Your task to perform on an android device: Open the web browser Image 0: 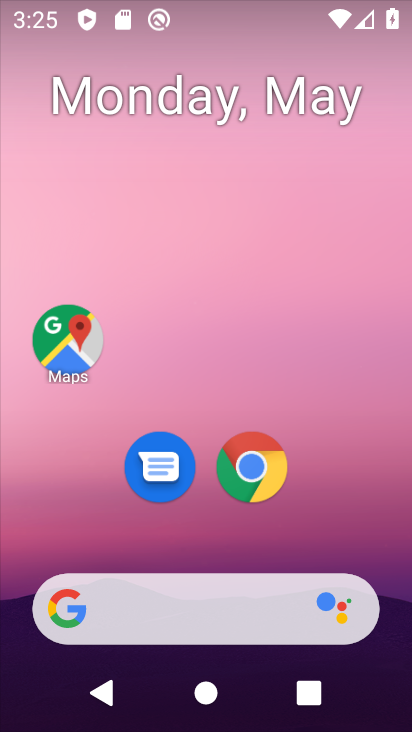
Step 0: drag from (84, 531) to (175, 82)
Your task to perform on an android device: Open the web browser Image 1: 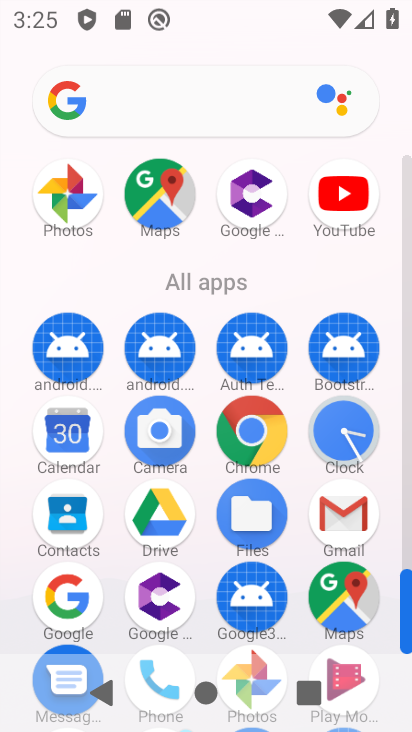
Step 1: click (69, 610)
Your task to perform on an android device: Open the web browser Image 2: 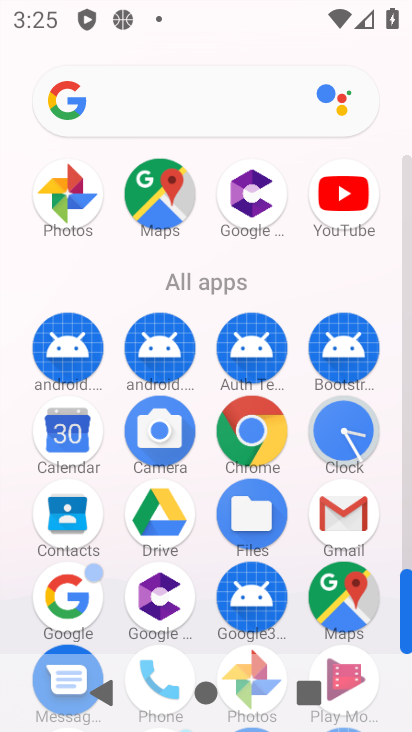
Step 2: click (66, 580)
Your task to perform on an android device: Open the web browser Image 3: 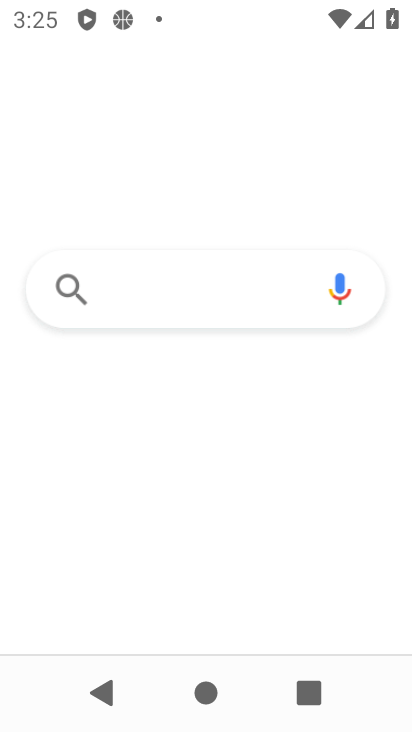
Step 3: click (75, 607)
Your task to perform on an android device: Open the web browser Image 4: 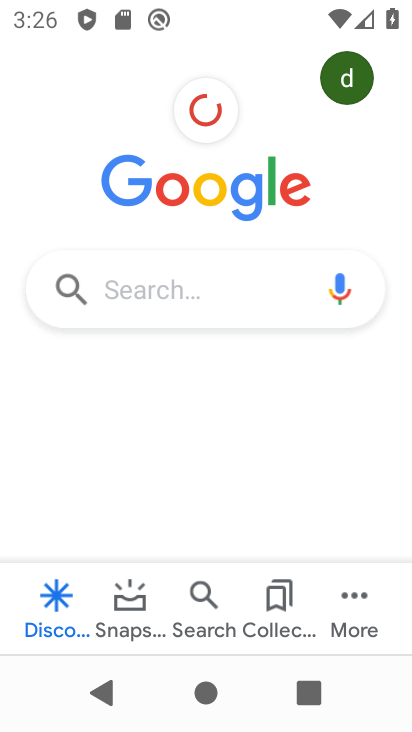
Step 4: task complete